Your task to perform on an android device: turn on showing notifications on the lock screen Image 0: 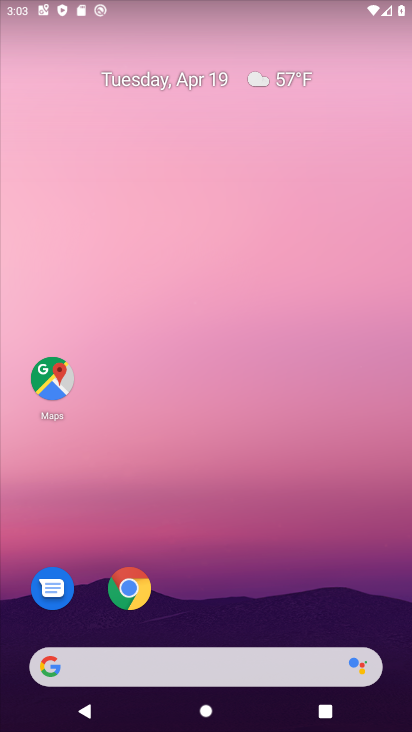
Step 0: drag from (208, 563) to (225, 353)
Your task to perform on an android device: turn on showing notifications on the lock screen Image 1: 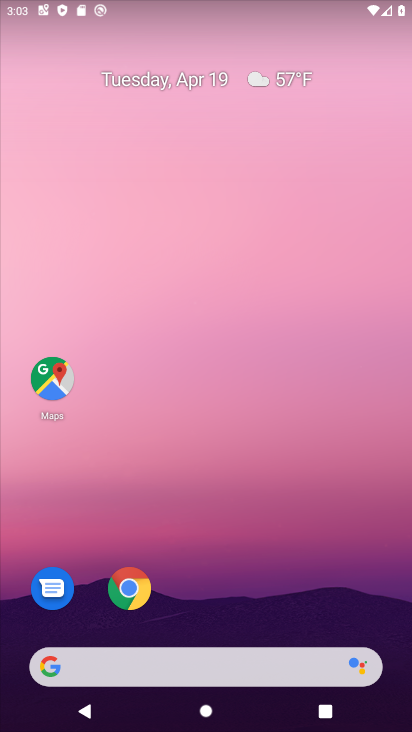
Step 1: drag from (245, 608) to (245, 276)
Your task to perform on an android device: turn on showing notifications on the lock screen Image 2: 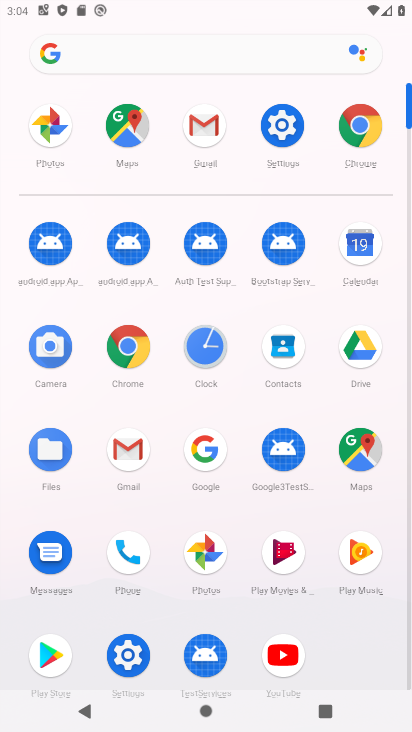
Step 2: click (134, 654)
Your task to perform on an android device: turn on showing notifications on the lock screen Image 3: 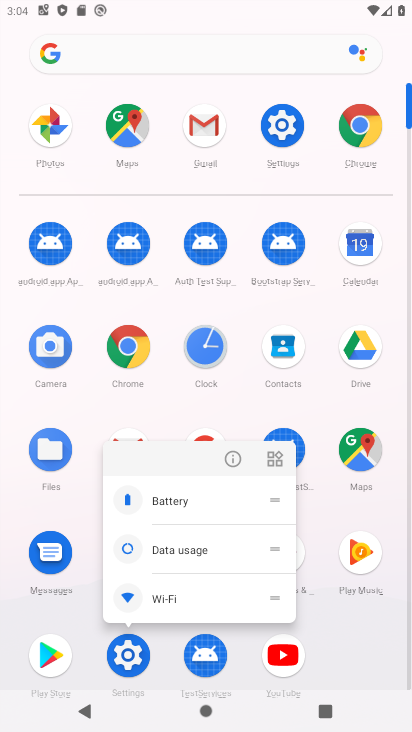
Step 3: click (235, 457)
Your task to perform on an android device: turn on showing notifications on the lock screen Image 4: 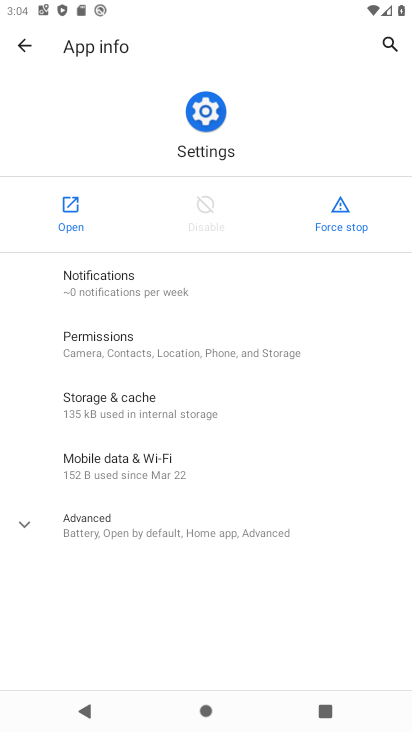
Step 4: click (62, 219)
Your task to perform on an android device: turn on showing notifications on the lock screen Image 5: 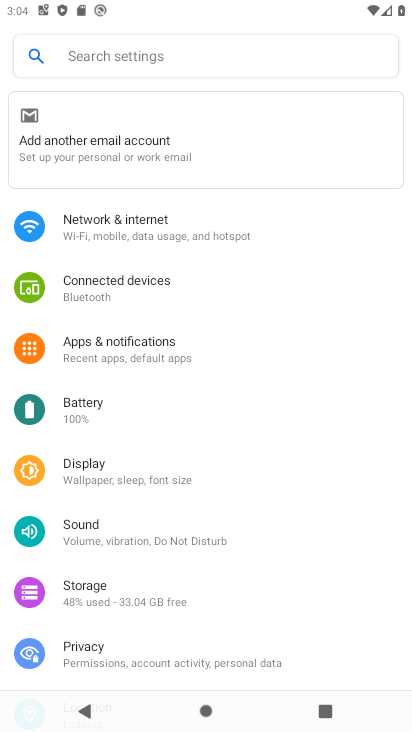
Step 5: click (157, 359)
Your task to perform on an android device: turn on showing notifications on the lock screen Image 6: 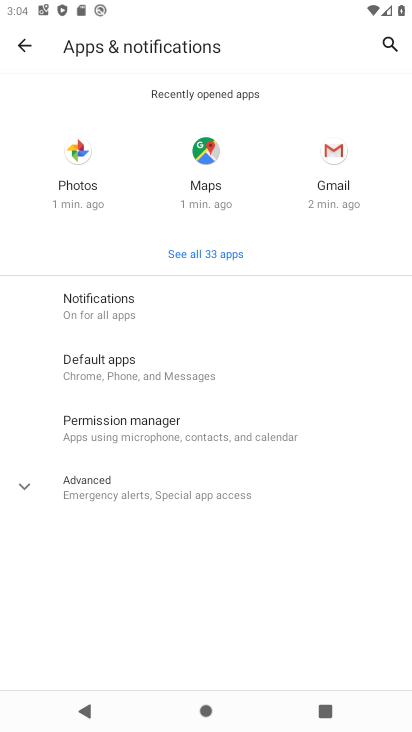
Step 6: click (167, 302)
Your task to perform on an android device: turn on showing notifications on the lock screen Image 7: 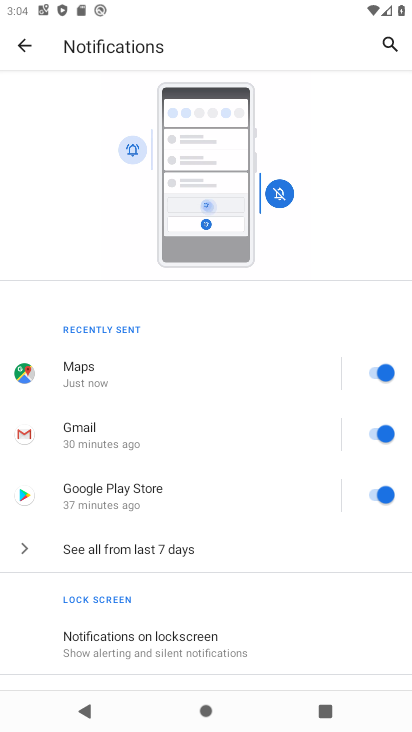
Step 7: click (220, 635)
Your task to perform on an android device: turn on showing notifications on the lock screen Image 8: 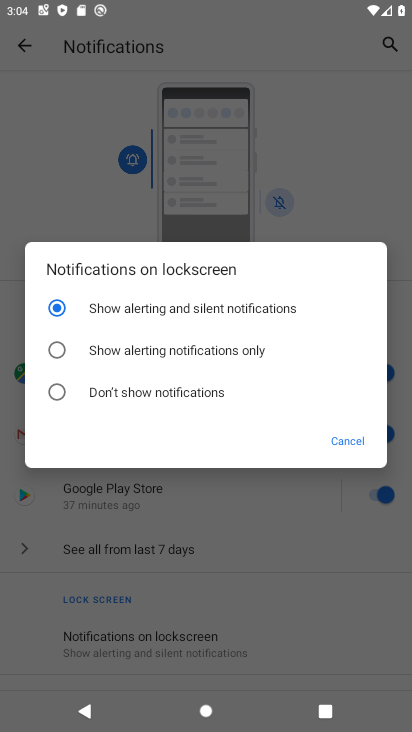
Step 8: click (154, 347)
Your task to perform on an android device: turn on showing notifications on the lock screen Image 9: 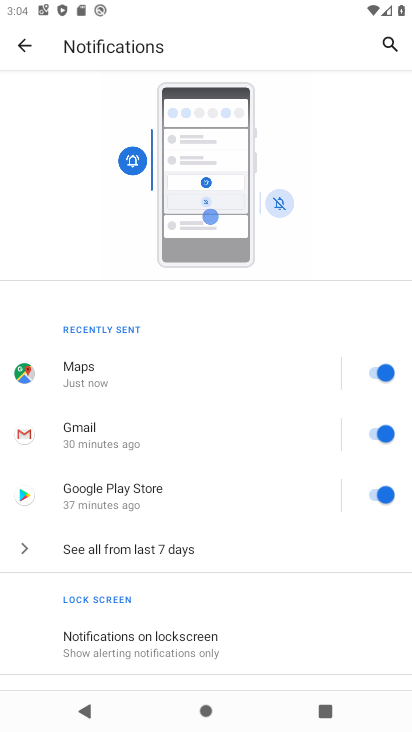
Step 9: task complete